Your task to perform on an android device: check battery use Image 0: 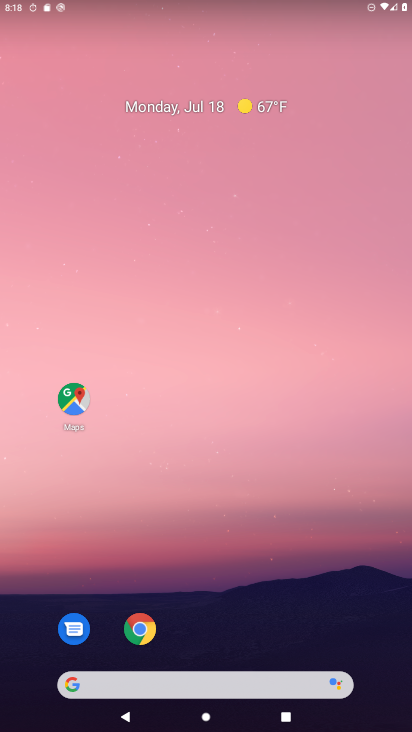
Step 0: drag from (214, 665) to (189, 57)
Your task to perform on an android device: check battery use Image 1: 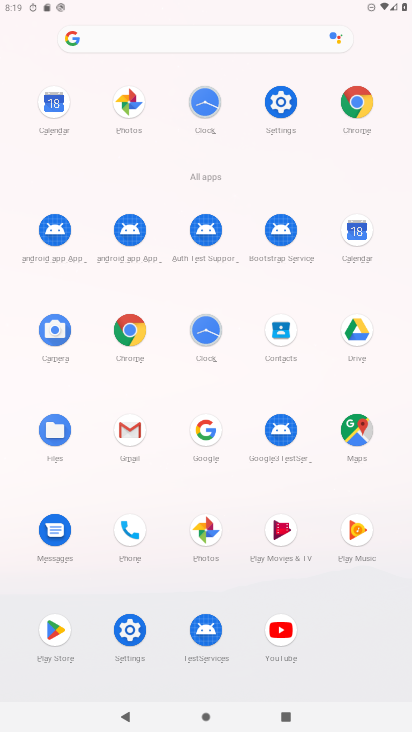
Step 1: click (279, 107)
Your task to perform on an android device: check battery use Image 2: 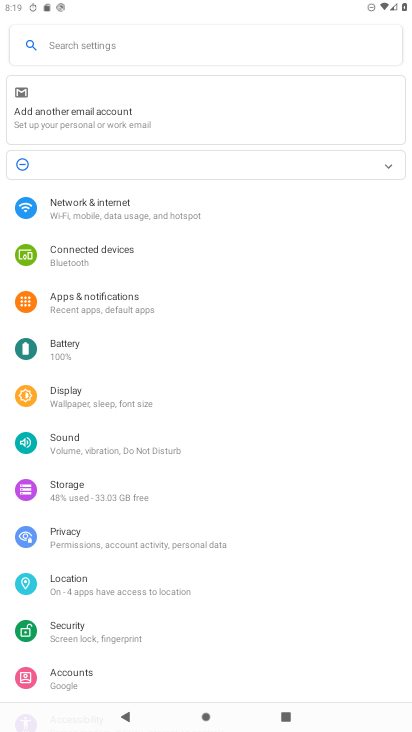
Step 2: click (9, 341)
Your task to perform on an android device: check battery use Image 3: 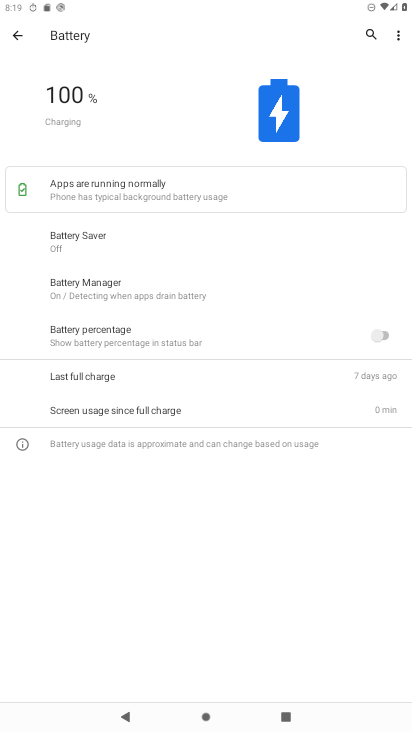
Step 3: drag from (191, 118) to (167, 498)
Your task to perform on an android device: check battery use Image 4: 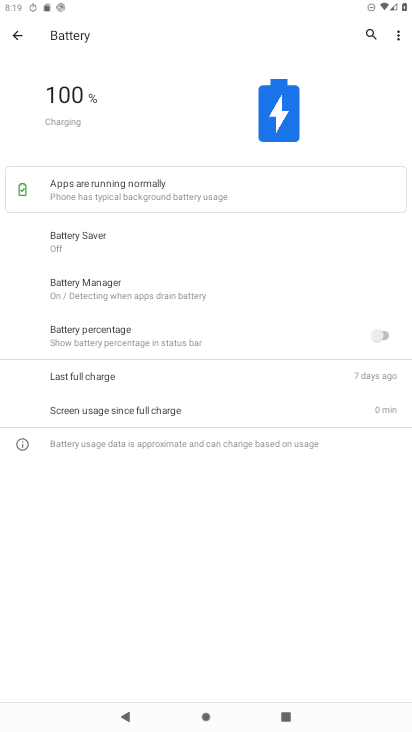
Step 4: click (397, 39)
Your task to perform on an android device: check battery use Image 5: 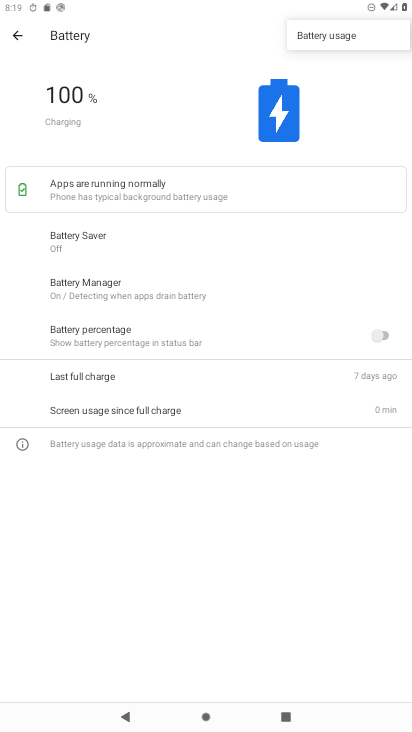
Step 5: click (326, 41)
Your task to perform on an android device: check battery use Image 6: 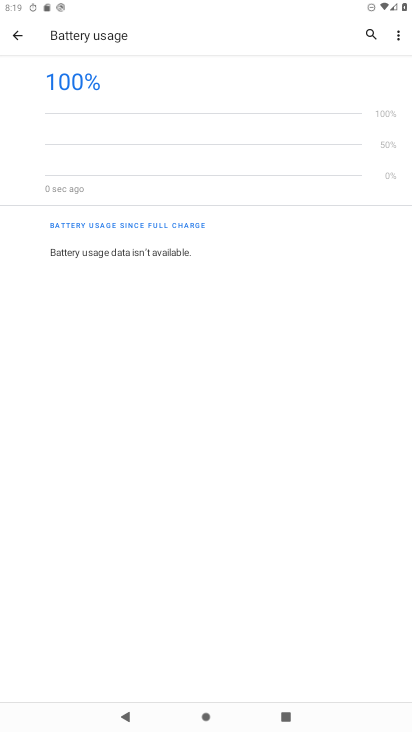
Step 6: task complete